Your task to perform on an android device: Open Google Chrome and open the bookmarks view Image 0: 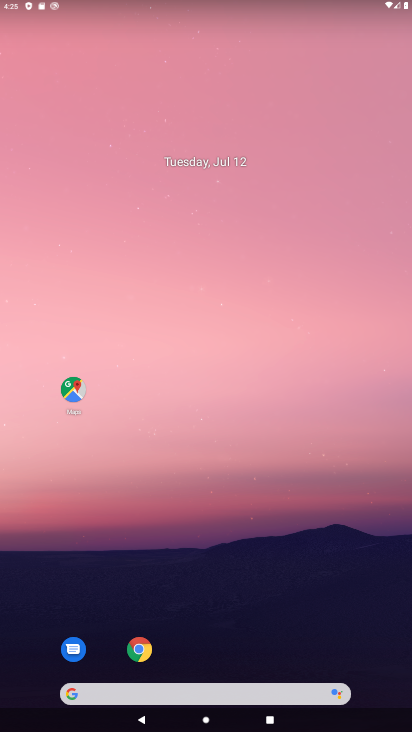
Step 0: click (140, 649)
Your task to perform on an android device: Open Google Chrome and open the bookmarks view Image 1: 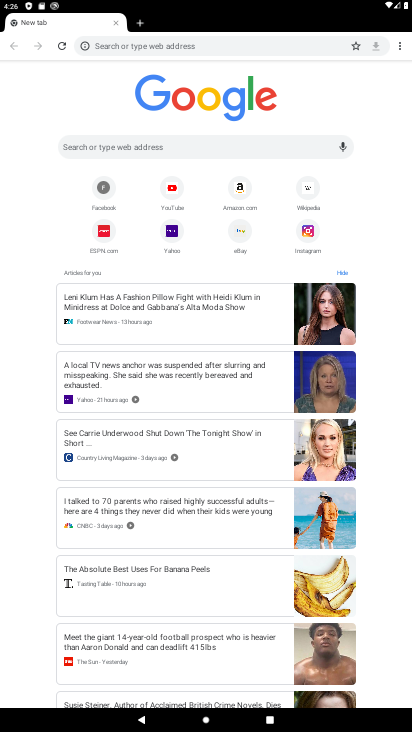
Step 1: click (400, 46)
Your task to perform on an android device: Open Google Chrome and open the bookmarks view Image 2: 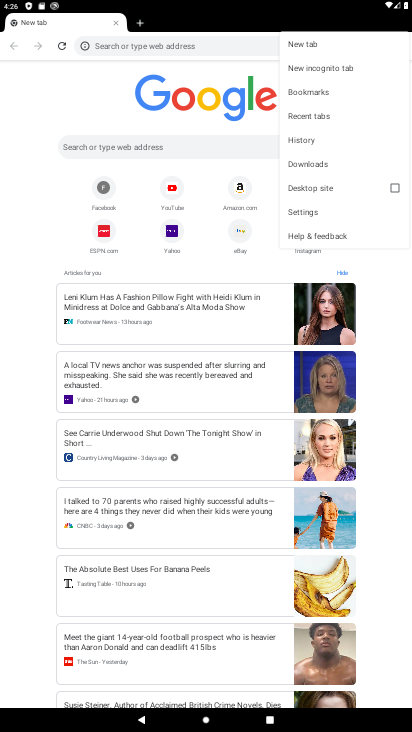
Step 2: click (317, 94)
Your task to perform on an android device: Open Google Chrome and open the bookmarks view Image 3: 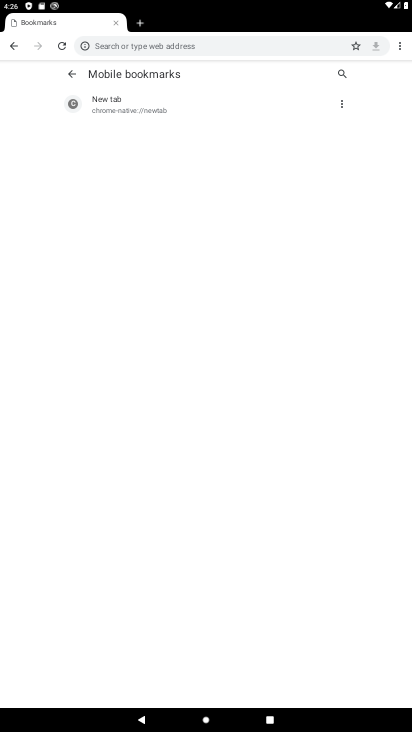
Step 3: task complete